Your task to perform on an android device: Open location settings Image 0: 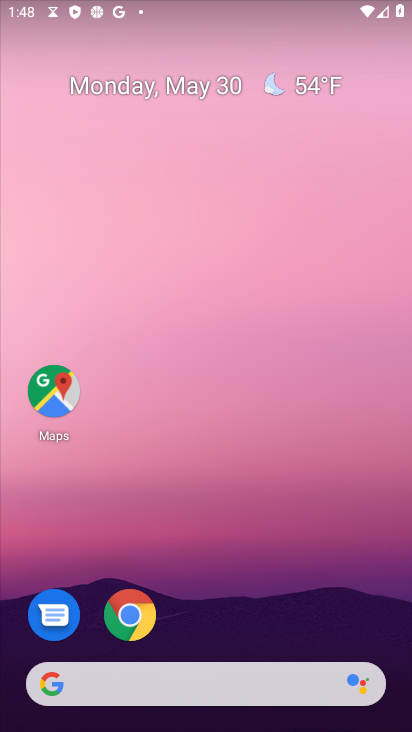
Step 0: drag from (328, 512) to (388, 2)
Your task to perform on an android device: Open location settings Image 1: 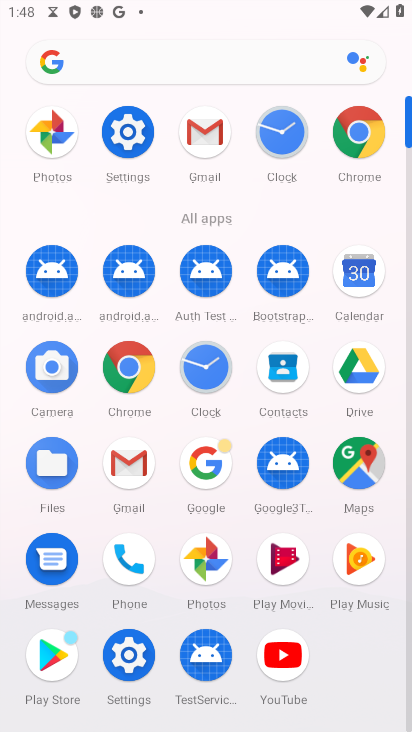
Step 1: click (163, 132)
Your task to perform on an android device: Open location settings Image 2: 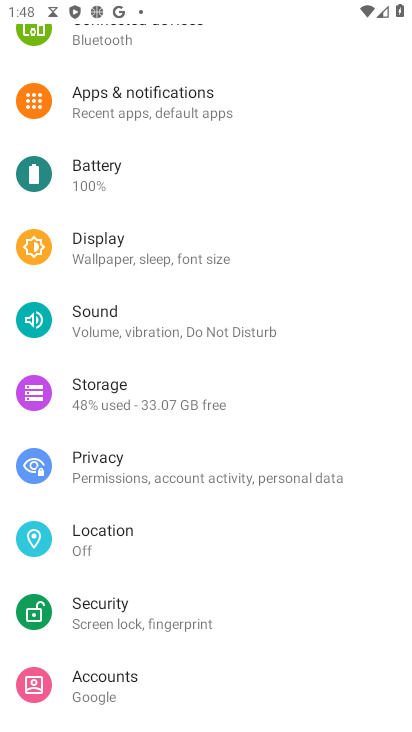
Step 2: click (124, 527)
Your task to perform on an android device: Open location settings Image 3: 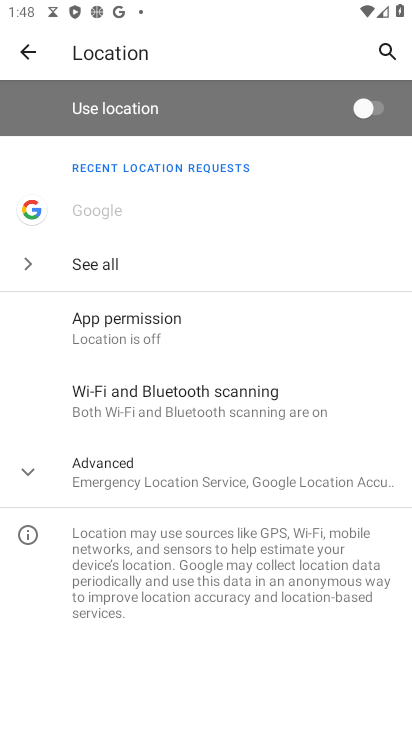
Step 3: task complete